Your task to perform on an android device: Open Google Maps and go to "Timeline" Image 0: 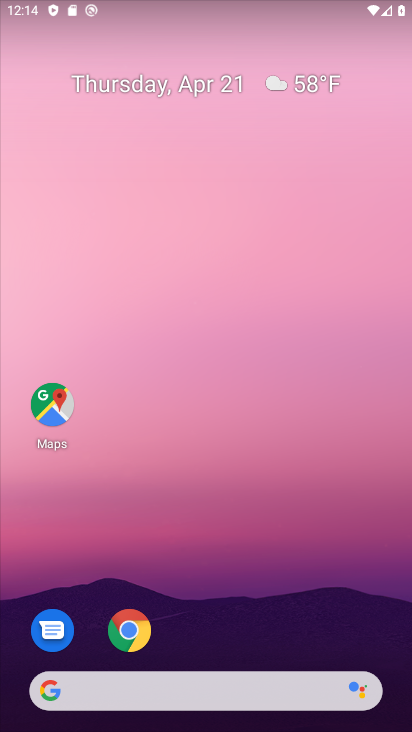
Step 0: drag from (188, 681) to (307, 151)
Your task to perform on an android device: Open Google Maps and go to "Timeline" Image 1: 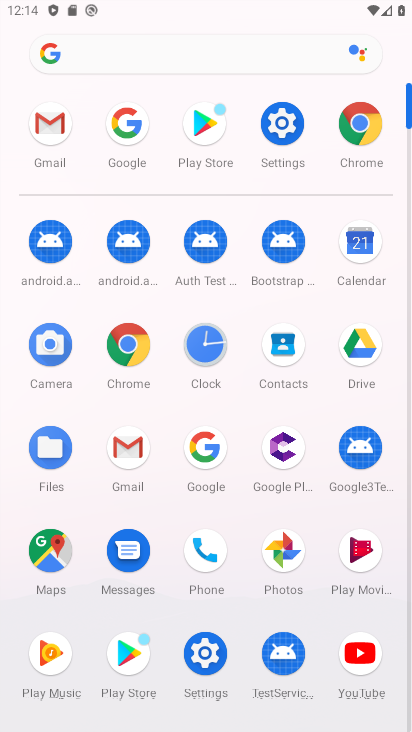
Step 1: click (53, 559)
Your task to perform on an android device: Open Google Maps and go to "Timeline" Image 2: 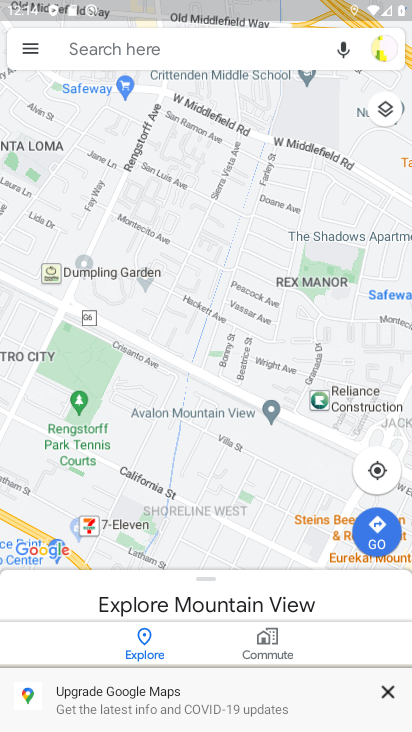
Step 2: click (32, 49)
Your task to perform on an android device: Open Google Maps and go to "Timeline" Image 3: 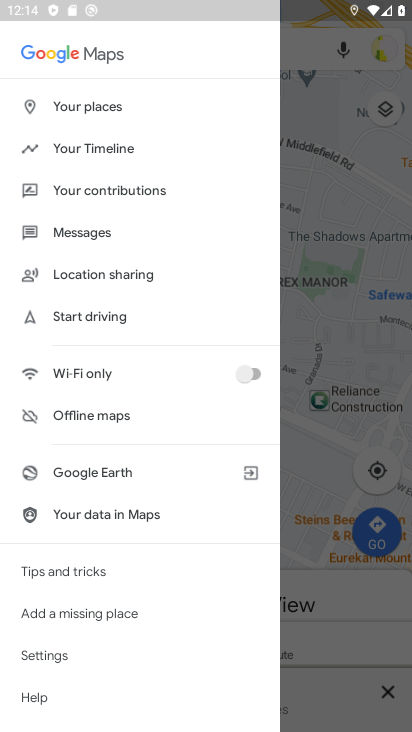
Step 3: click (104, 149)
Your task to perform on an android device: Open Google Maps and go to "Timeline" Image 4: 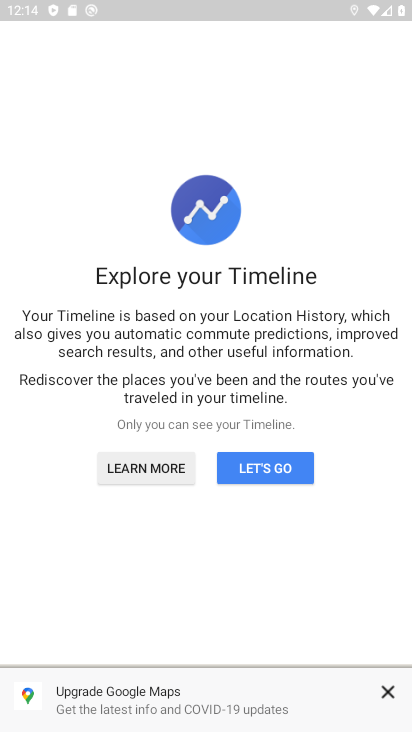
Step 4: click (265, 475)
Your task to perform on an android device: Open Google Maps and go to "Timeline" Image 5: 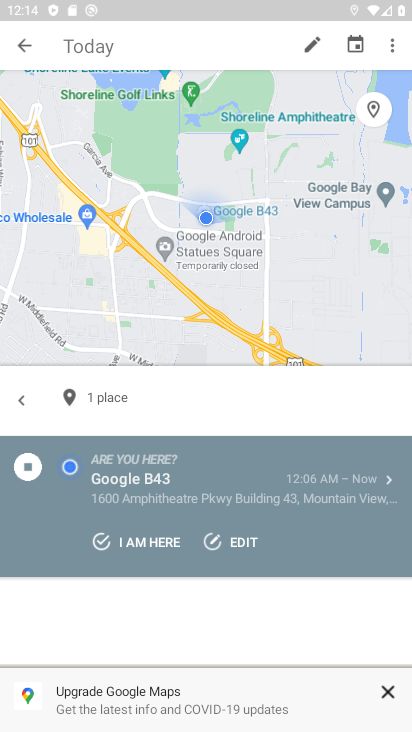
Step 5: task complete